Your task to perform on an android device: Open Google Maps and go to "Timeline" Image 0: 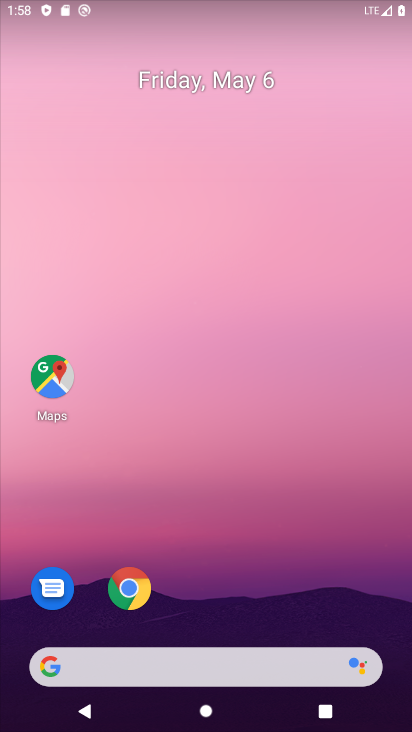
Step 0: drag from (346, 586) to (310, 111)
Your task to perform on an android device: Open Google Maps and go to "Timeline" Image 1: 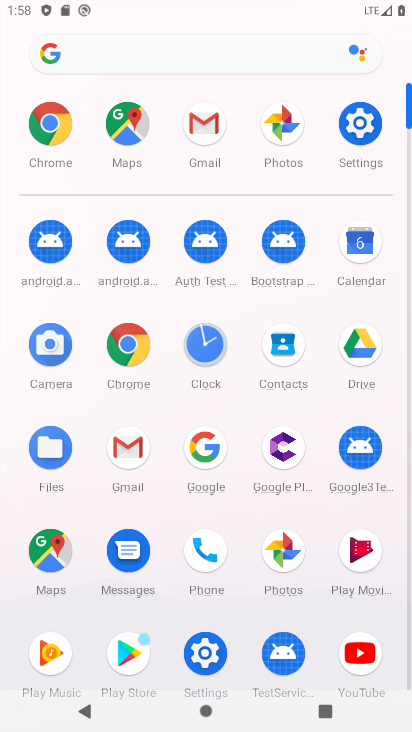
Step 1: click (127, 119)
Your task to perform on an android device: Open Google Maps and go to "Timeline" Image 2: 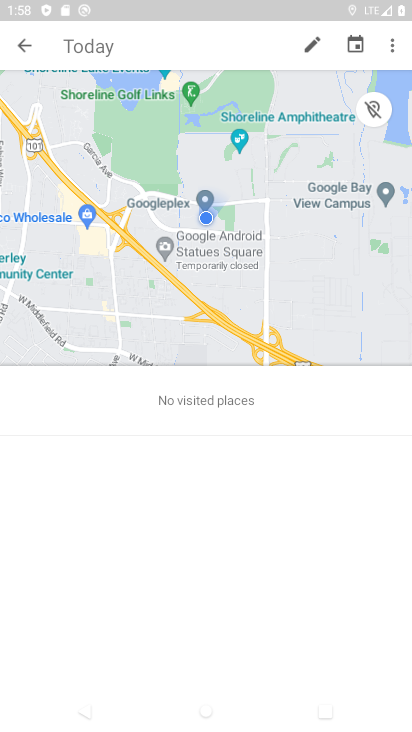
Step 2: click (22, 46)
Your task to perform on an android device: Open Google Maps and go to "Timeline" Image 3: 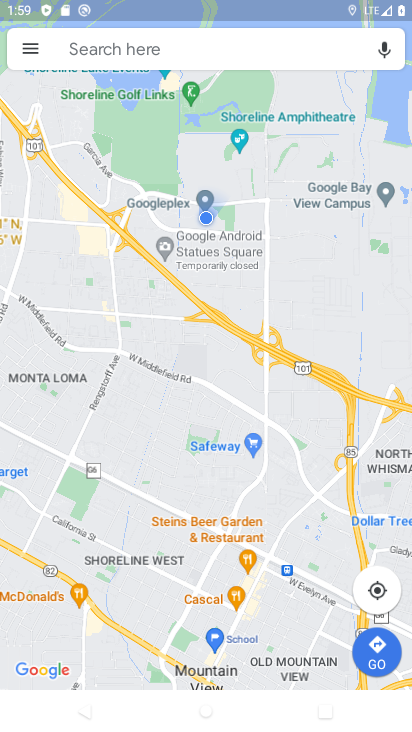
Step 3: click (24, 47)
Your task to perform on an android device: Open Google Maps and go to "Timeline" Image 4: 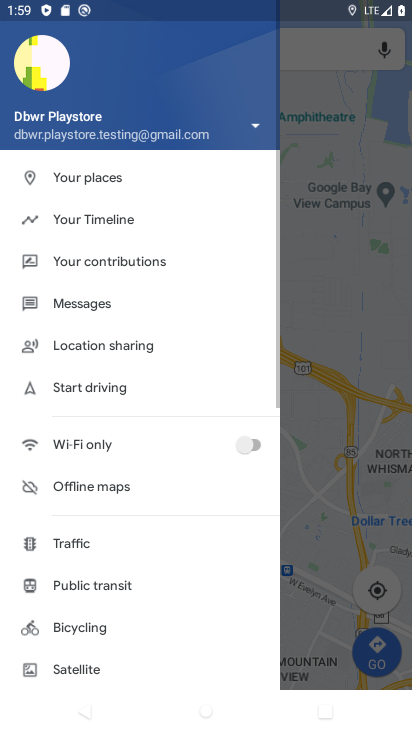
Step 4: click (83, 214)
Your task to perform on an android device: Open Google Maps and go to "Timeline" Image 5: 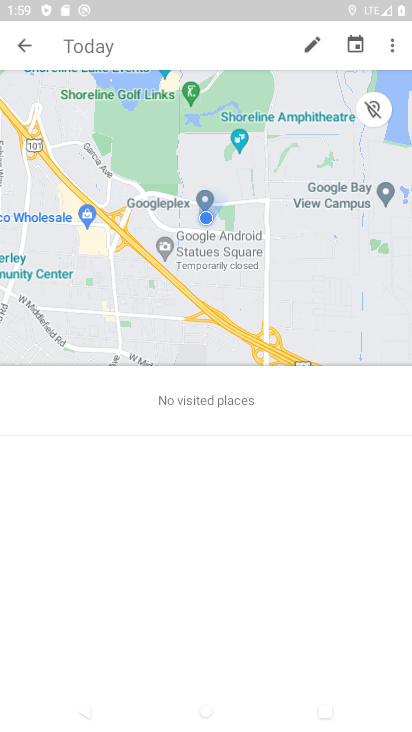
Step 5: task complete